Your task to perform on an android device: add a contact Image 0: 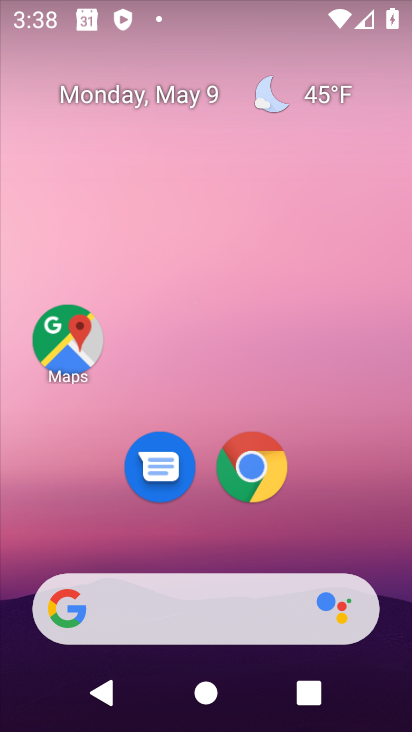
Step 0: drag from (299, 460) to (336, 226)
Your task to perform on an android device: add a contact Image 1: 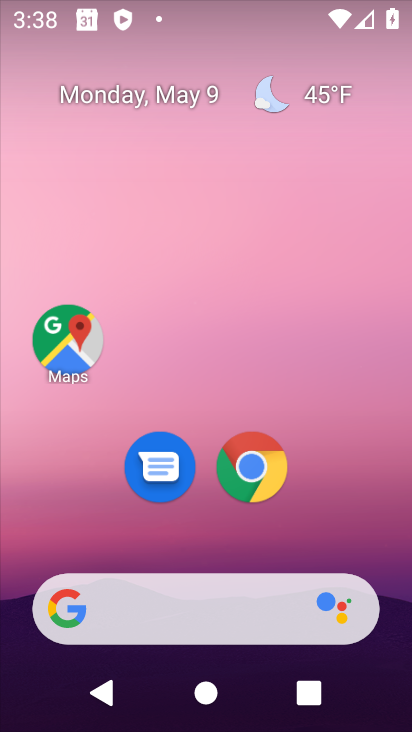
Step 1: drag from (271, 486) to (272, 182)
Your task to perform on an android device: add a contact Image 2: 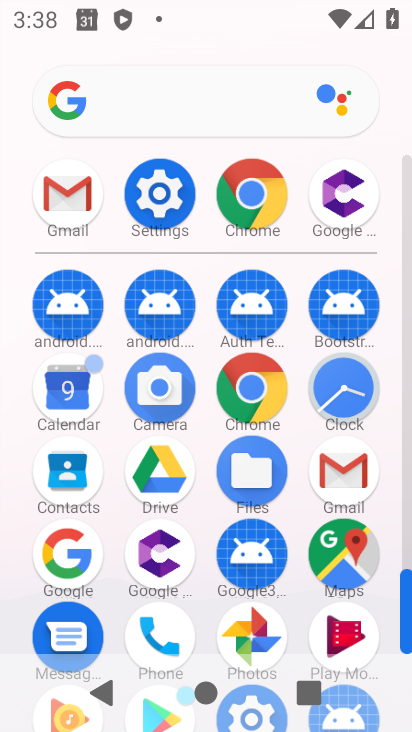
Step 2: click (57, 486)
Your task to perform on an android device: add a contact Image 3: 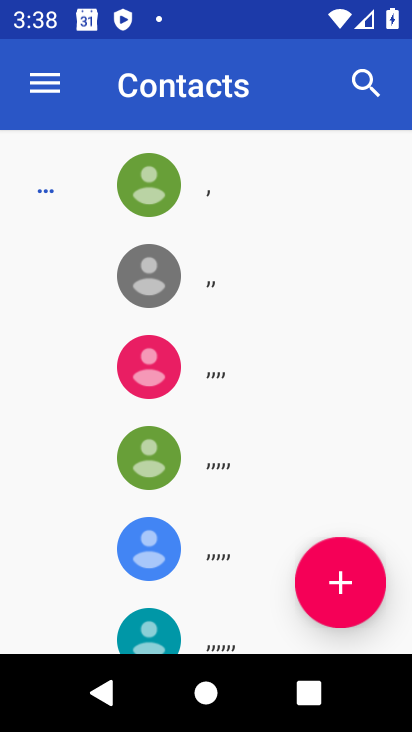
Step 3: click (329, 595)
Your task to perform on an android device: add a contact Image 4: 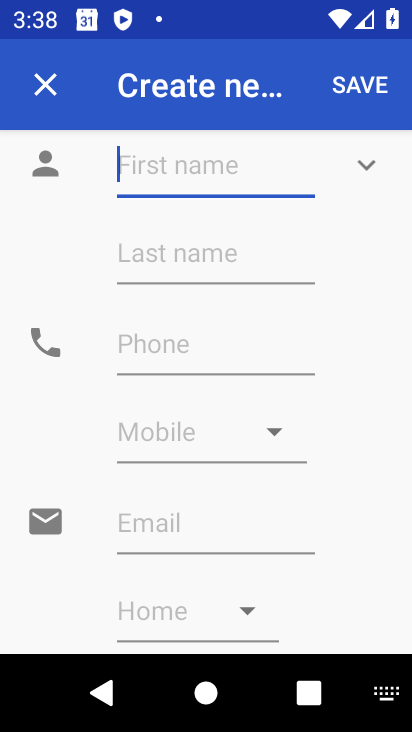
Step 4: type "ramu kaka"
Your task to perform on an android device: add a contact Image 5: 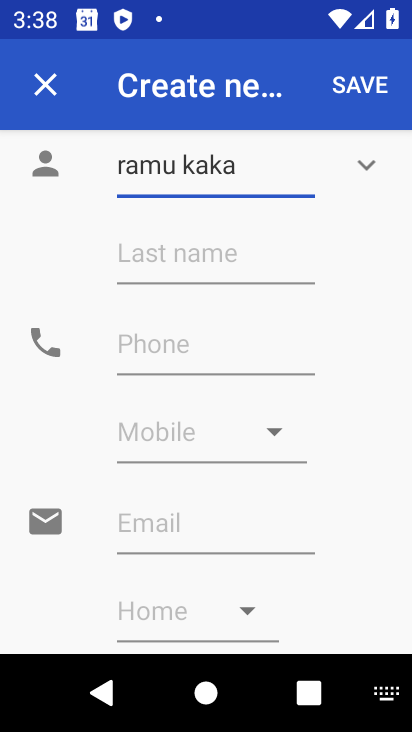
Step 5: click (152, 363)
Your task to perform on an android device: add a contact Image 6: 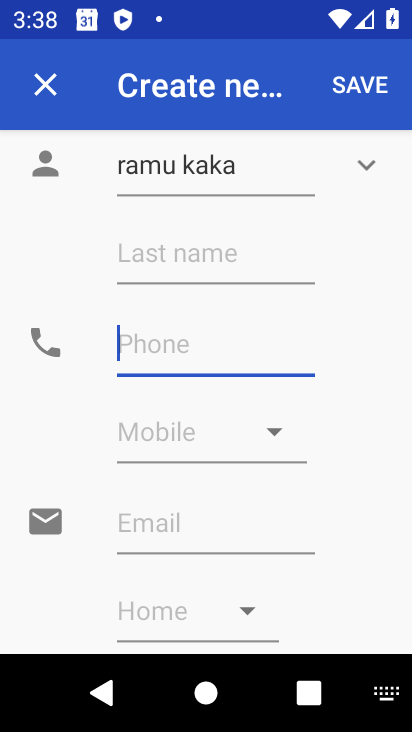
Step 6: type "8798765675"
Your task to perform on an android device: add a contact Image 7: 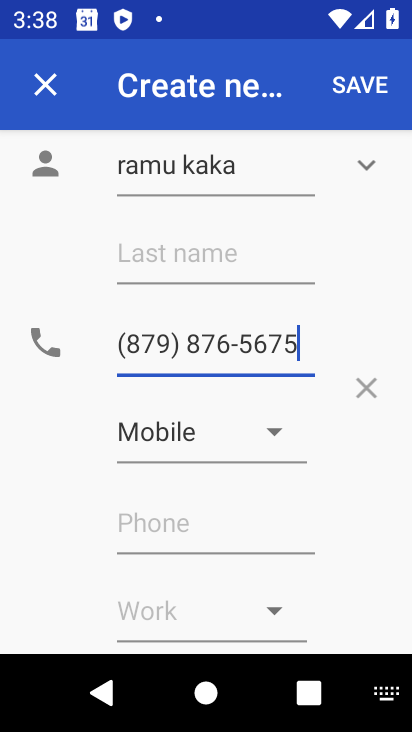
Step 7: click (365, 83)
Your task to perform on an android device: add a contact Image 8: 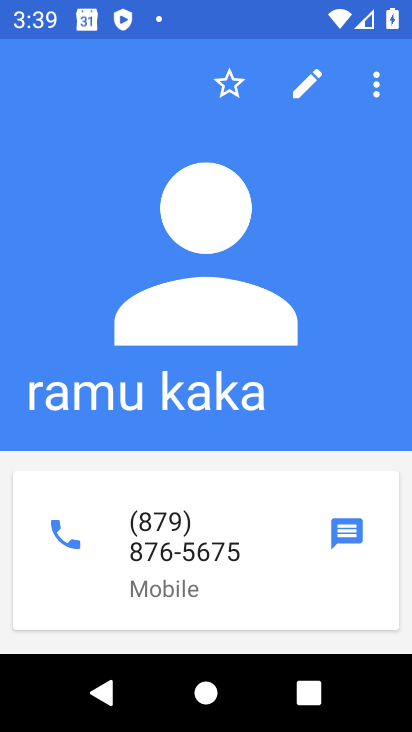
Step 8: task complete